Your task to perform on an android device: Open the most recent email and forward to: 'tau.kellybrennan.1654798856748@gmail.com'. Image 0: 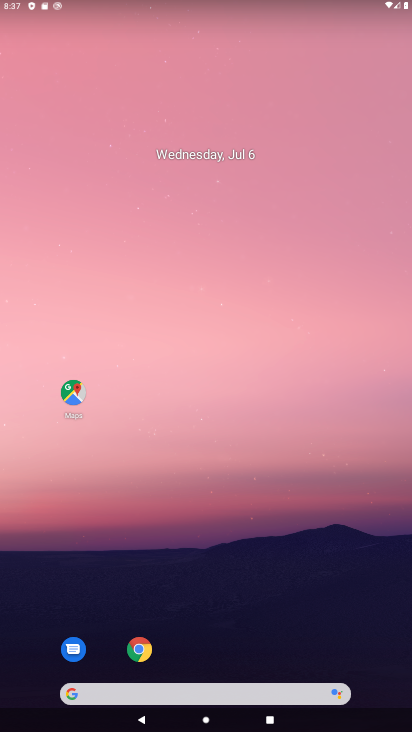
Step 0: drag from (258, 663) to (262, 2)
Your task to perform on an android device: Open the most recent email and forward to: 'tau.kellybrennan.1654798856748@gmail.com'. Image 1: 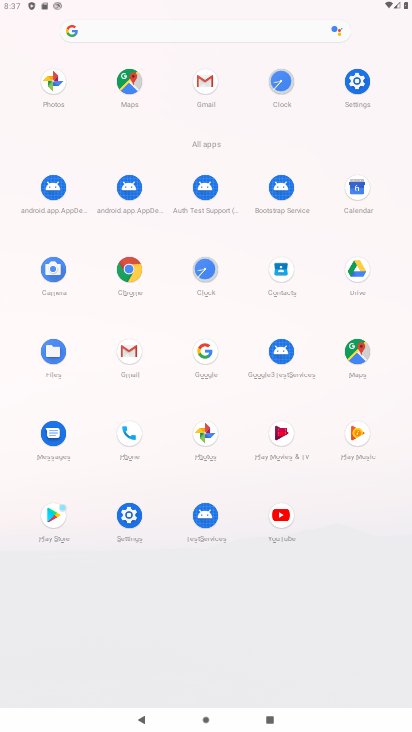
Step 1: click (206, 98)
Your task to perform on an android device: Open the most recent email and forward to: 'tau.kellybrennan.1654798856748@gmail.com'. Image 2: 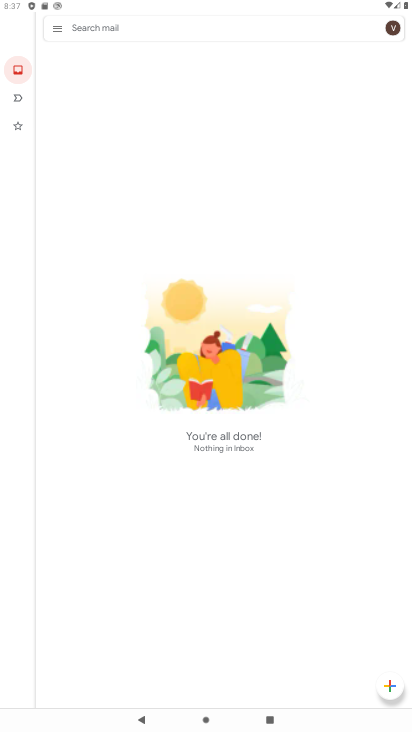
Step 2: task complete